Your task to perform on an android device: Open sound settings Image 0: 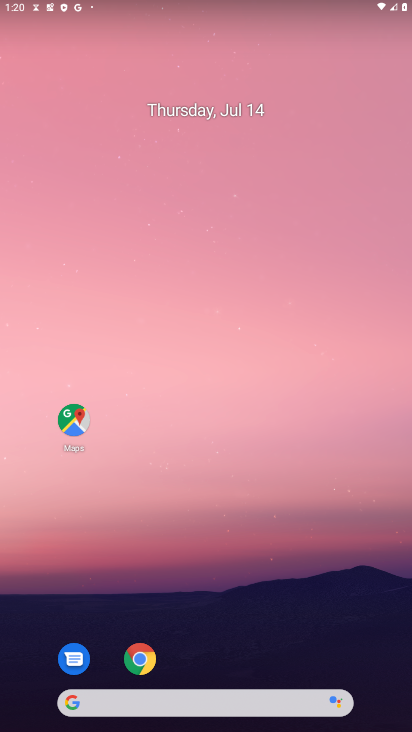
Step 0: drag from (13, 684) to (375, 70)
Your task to perform on an android device: Open sound settings Image 1: 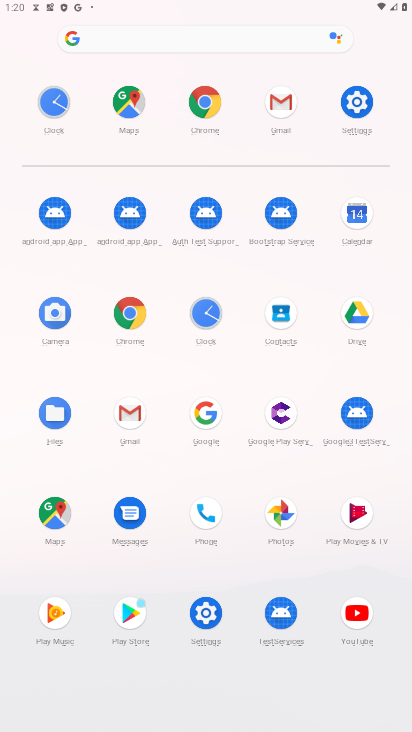
Step 1: click (205, 637)
Your task to perform on an android device: Open sound settings Image 2: 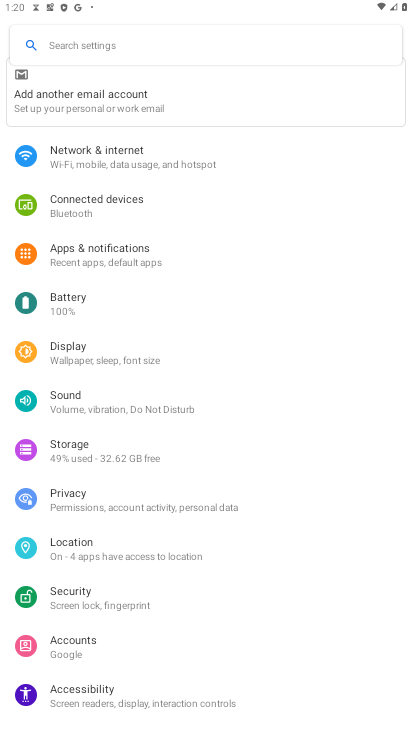
Step 2: click (79, 401)
Your task to perform on an android device: Open sound settings Image 3: 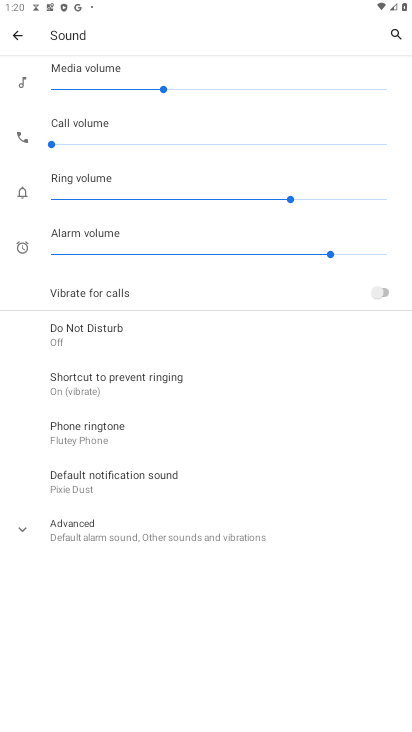
Step 3: task complete